Your task to perform on an android device: clear all cookies in the chrome app Image 0: 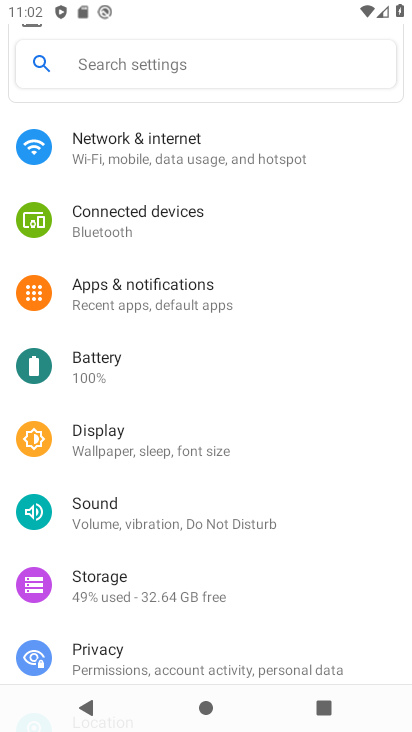
Step 0: press home button
Your task to perform on an android device: clear all cookies in the chrome app Image 1: 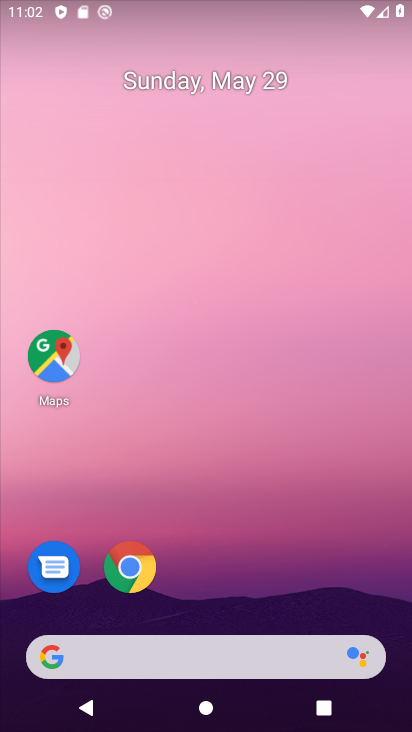
Step 1: click (137, 563)
Your task to perform on an android device: clear all cookies in the chrome app Image 2: 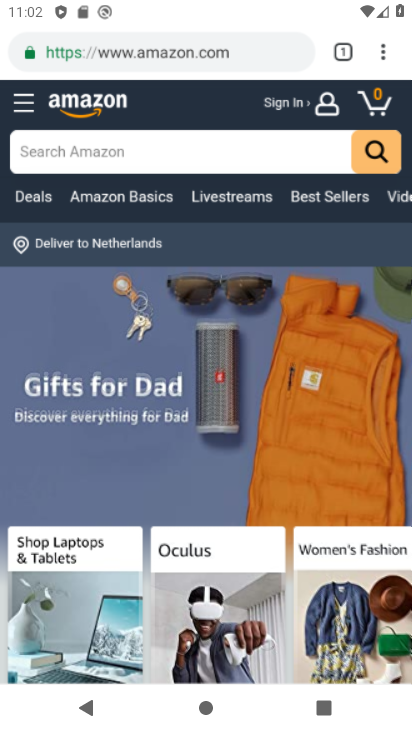
Step 2: click (385, 60)
Your task to perform on an android device: clear all cookies in the chrome app Image 3: 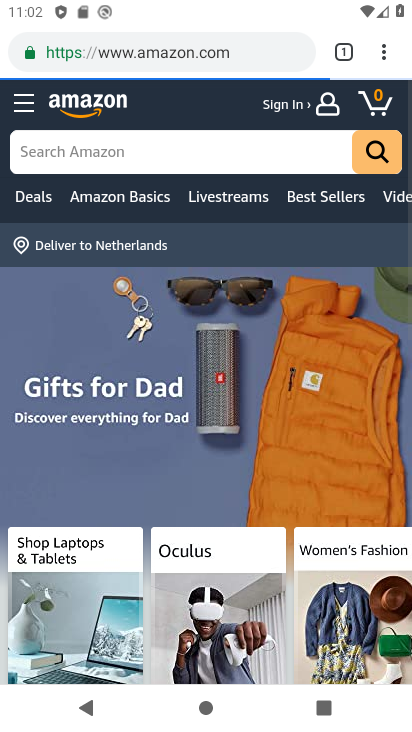
Step 3: click (383, 60)
Your task to perform on an android device: clear all cookies in the chrome app Image 4: 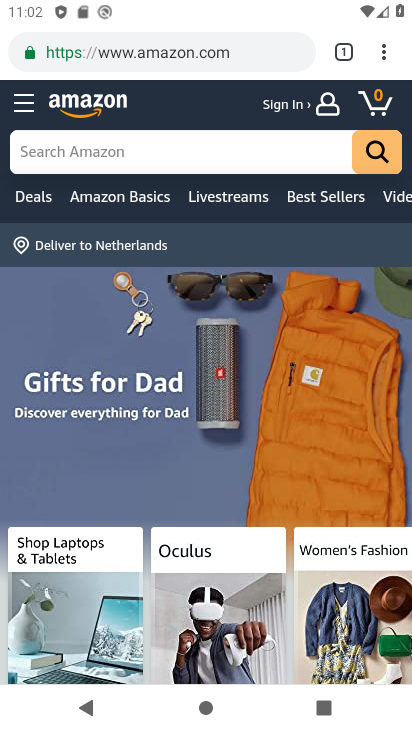
Step 4: drag from (382, 42) to (181, 287)
Your task to perform on an android device: clear all cookies in the chrome app Image 5: 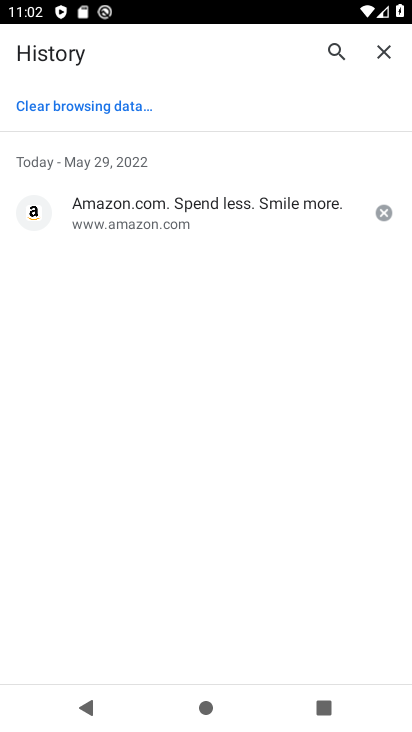
Step 5: click (86, 113)
Your task to perform on an android device: clear all cookies in the chrome app Image 6: 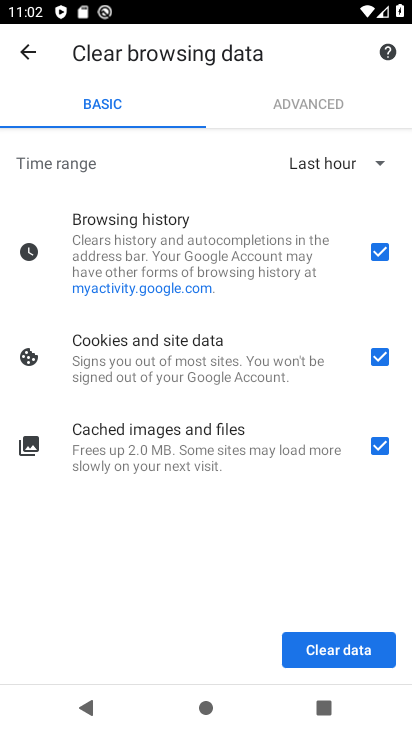
Step 6: click (372, 658)
Your task to perform on an android device: clear all cookies in the chrome app Image 7: 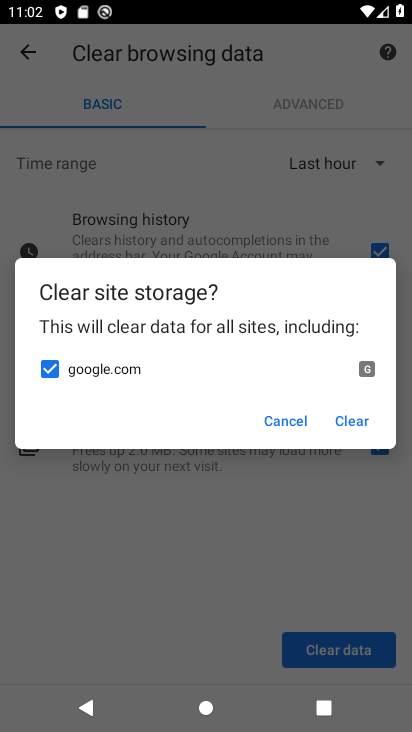
Step 7: click (360, 418)
Your task to perform on an android device: clear all cookies in the chrome app Image 8: 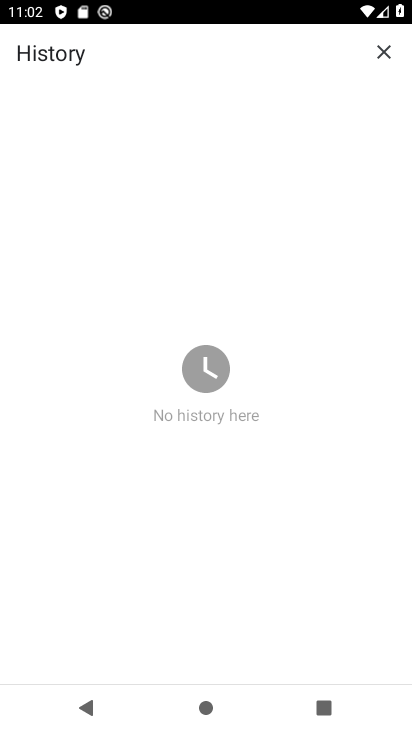
Step 8: task complete